Your task to perform on an android device: Do I have any events this weekend? Image 0: 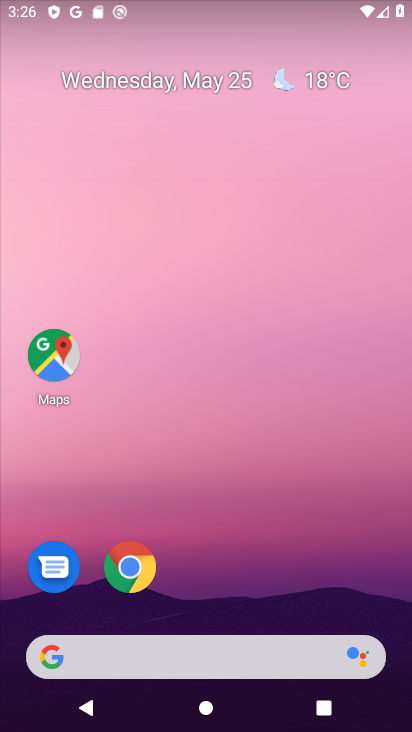
Step 0: drag from (293, 588) to (327, 196)
Your task to perform on an android device: Do I have any events this weekend? Image 1: 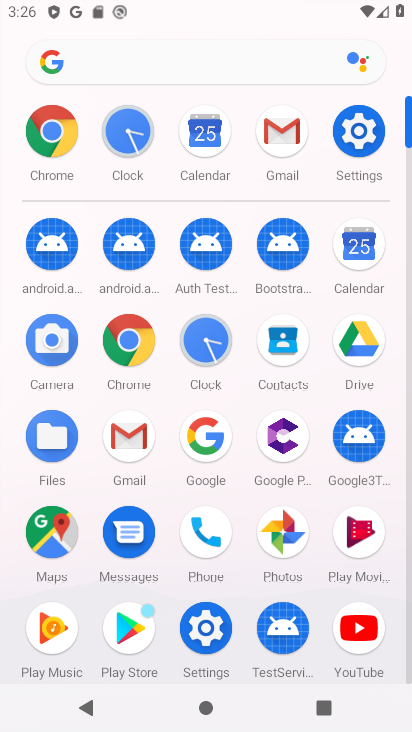
Step 1: click (372, 263)
Your task to perform on an android device: Do I have any events this weekend? Image 2: 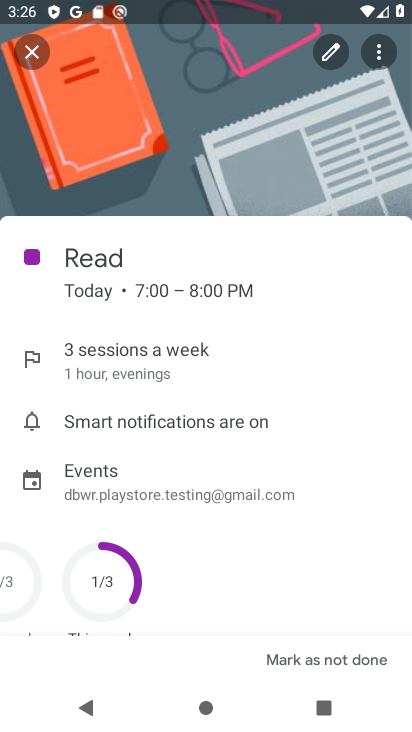
Step 2: press back button
Your task to perform on an android device: Do I have any events this weekend? Image 3: 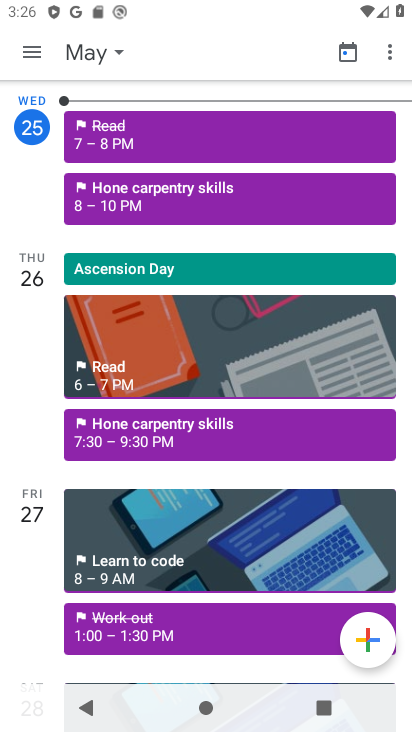
Step 3: drag from (282, 523) to (284, 222)
Your task to perform on an android device: Do I have any events this weekend? Image 4: 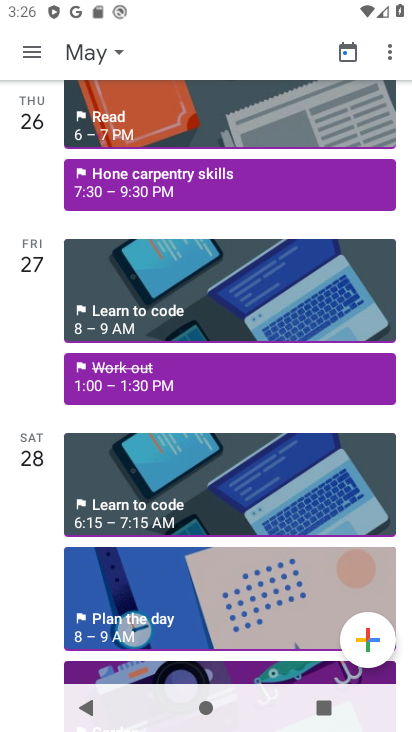
Step 4: drag from (260, 543) to (292, 244)
Your task to perform on an android device: Do I have any events this weekend? Image 5: 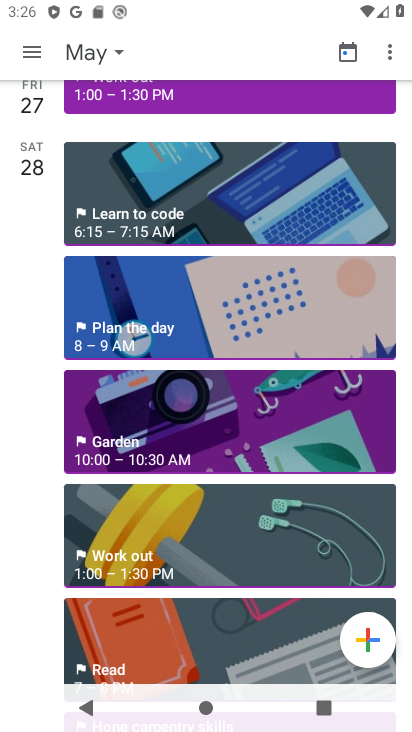
Step 5: drag from (245, 516) to (231, 231)
Your task to perform on an android device: Do I have any events this weekend? Image 6: 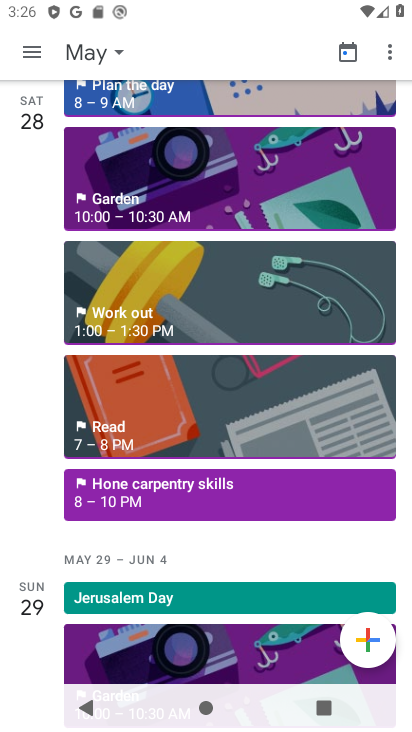
Step 6: drag from (201, 478) to (204, 326)
Your task to perform on an android device: Do I have any events this weekend? Image 7: 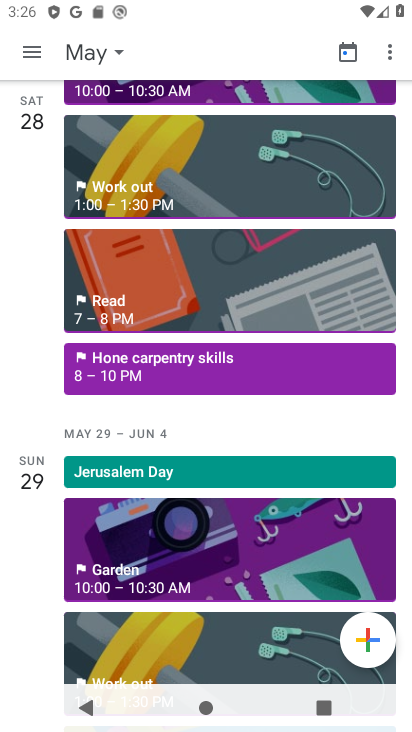
Step 7: drag from (196, 579) to (192, 388)
Your task to perform on an android device: Do I have any events this weekend? Image 8: 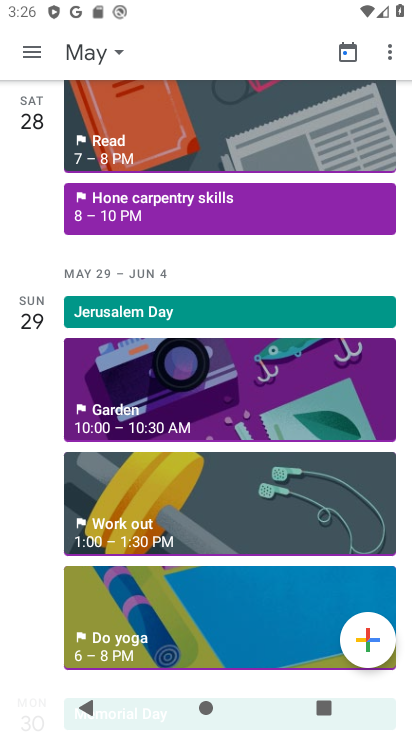
Step 8: click (264, 378)
Your task to perform on an android device: Do I have any events this weekend? Image 9: 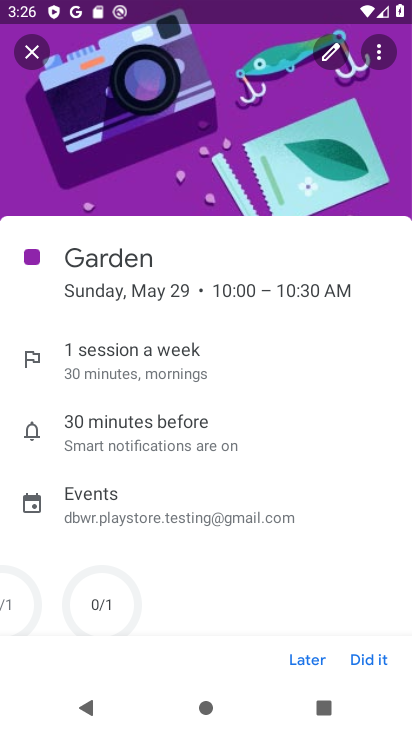
Step 9: task complete